Your task to perform on an android device: change alarm snooze length Image 0: 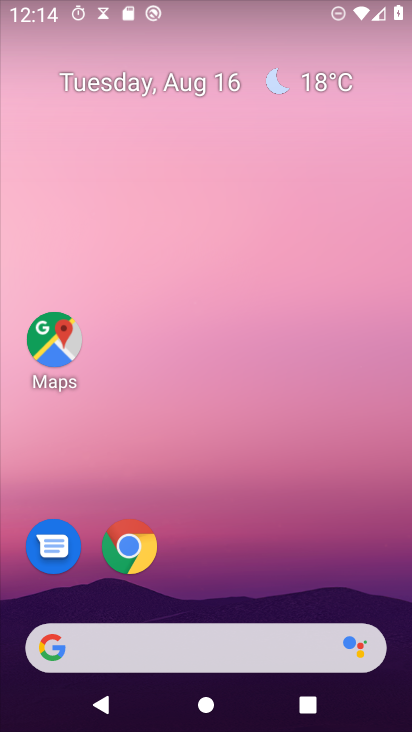
Step 0: drag from (234, 567) to (236, 5)
Your task to perform on an android device: change alarm snooze length Image 1: 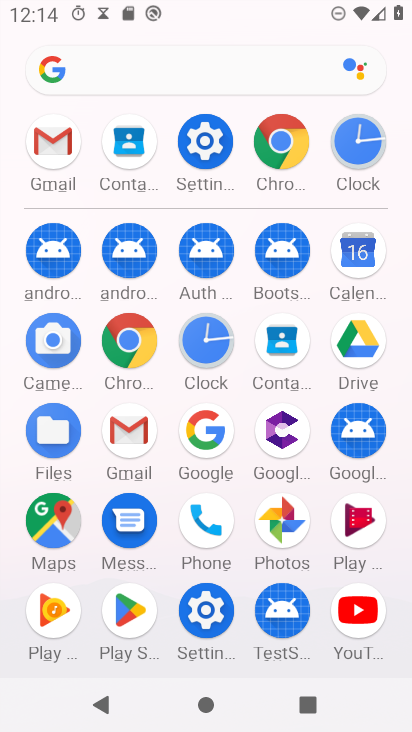
Step 1: click (207, 344)
Your task to perform on an android device: change alarm snooze length Image 2: 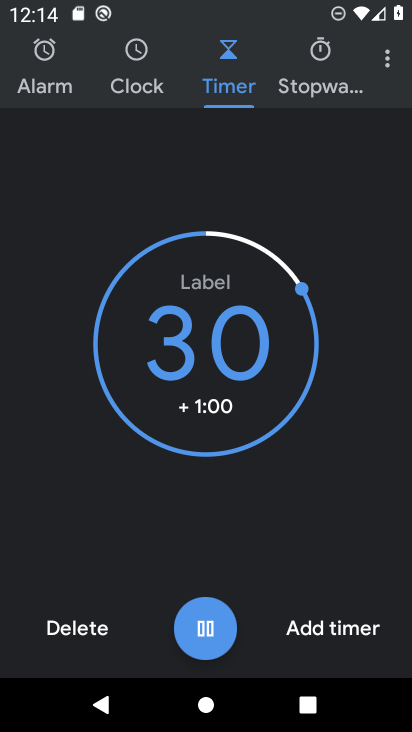
Step 2: click (386, 61)
Your task to perform on an android device: change alarm snooze length Image 3: 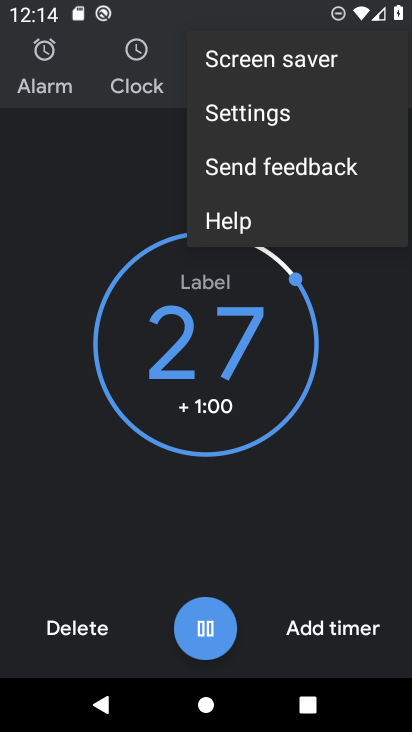
Step 3: click (246, 110)
Your task to perform on an android device: change alarm snooze length Image 4: 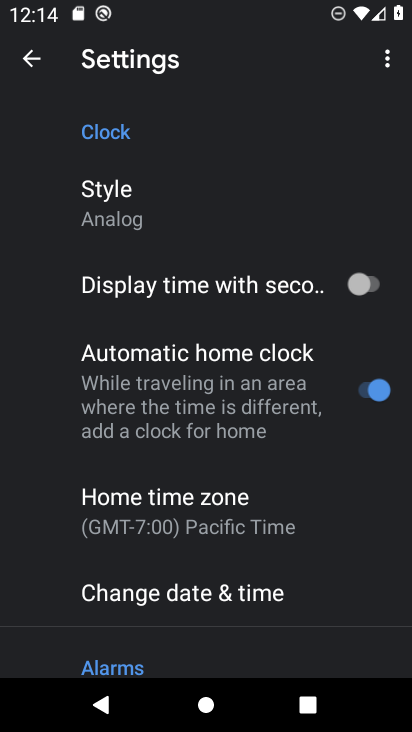
Step 4: drag from (166, 596) to (177, 227)
Your task to perform on an android device: change alarm snooze length Image 5: 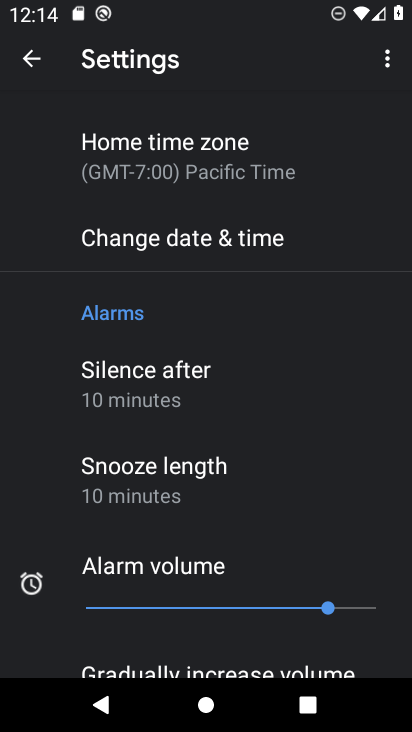
Step 5: click (137, 468)
Your task to perform on an android device: change alarm snooze length Image 6: 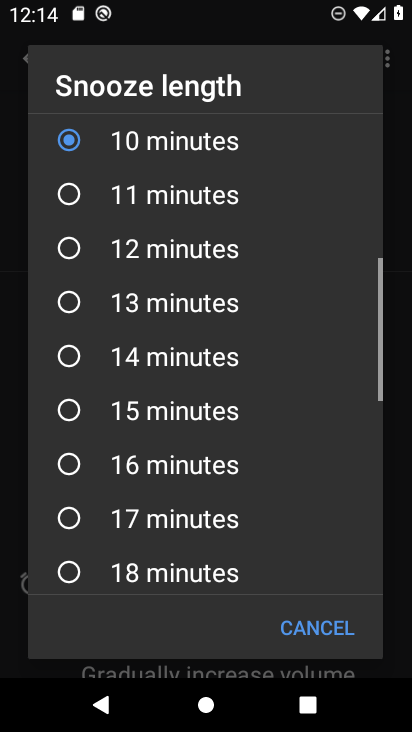
Step 6: click (69, 522)
Your task to perform on an android device: change alarm snooze length Image 7: 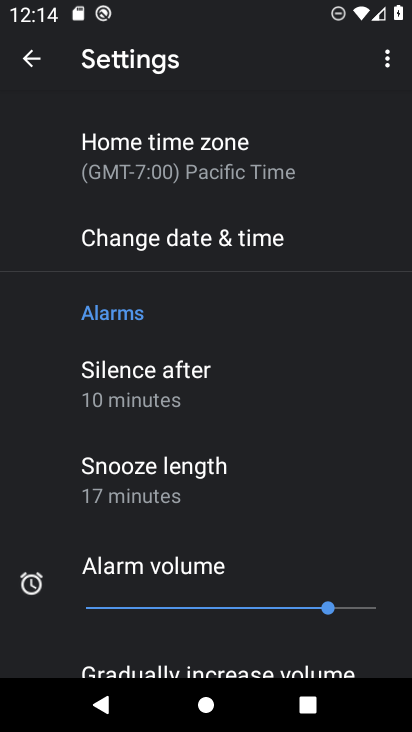
Step 7: task complete